Your task to perform on an android device: clear all cookies in the chrome app Image 0: 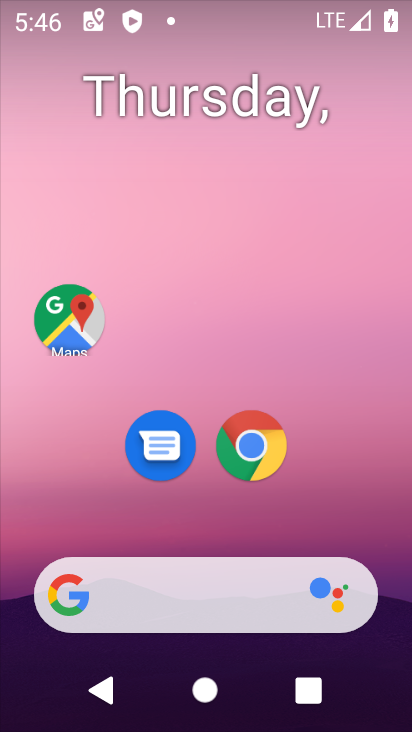
Step 0: click (254, 438)
Your task to perform on an android device: clear all cookies in the chrome app Image 1: 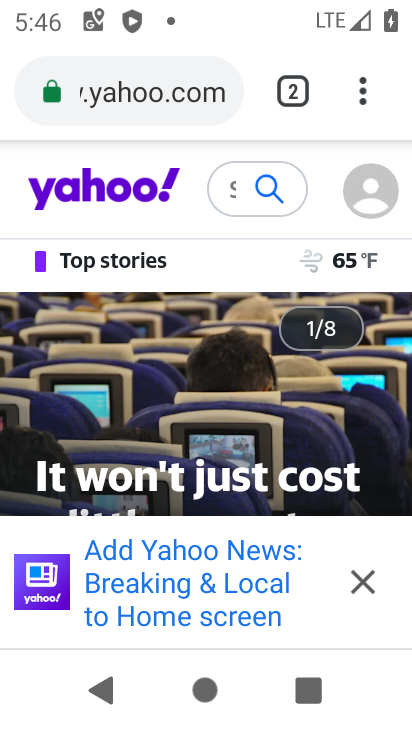
Step 1: drag from (357, 90) to (123, 476)
Your task to perform on an android device: clear all cookies in the chrome app Image 2: 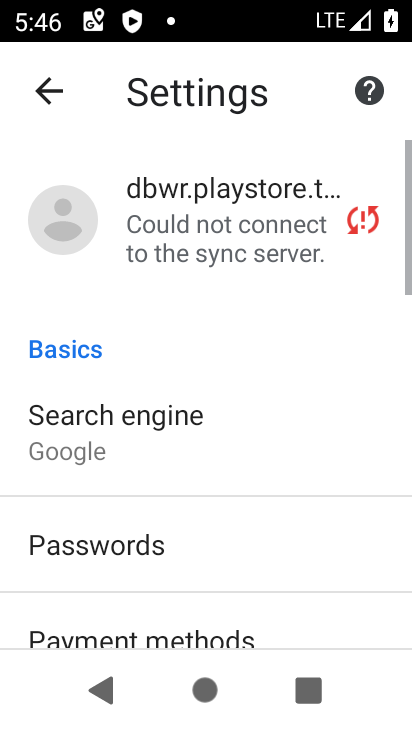
Step 2: drag from (256, 586) to (223, 188)
Your task to perform on an android device: clear all cookies in the chrome app Image 3: 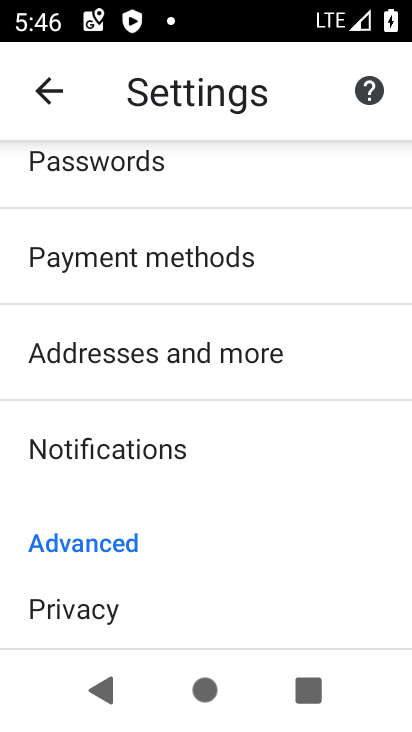
Step 3: click (105, 610)
Your task to perform on an android device: clear all cookies in the chrome app Image 4: 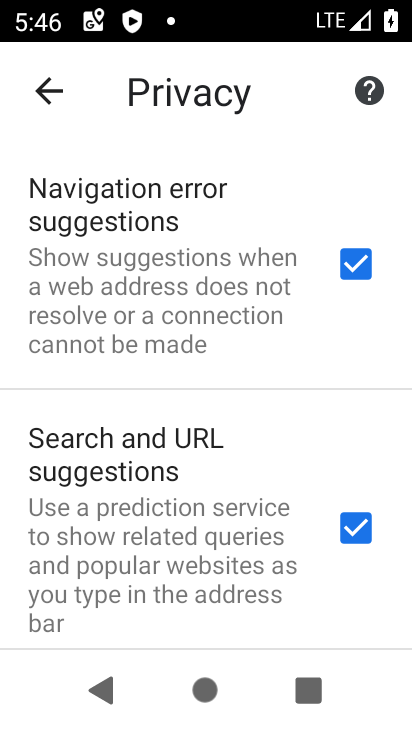
Step 4: drag from (229, 556) to (226, 244)
Your task to perform on an android device: clear all cookies in the chrome app Image 5: 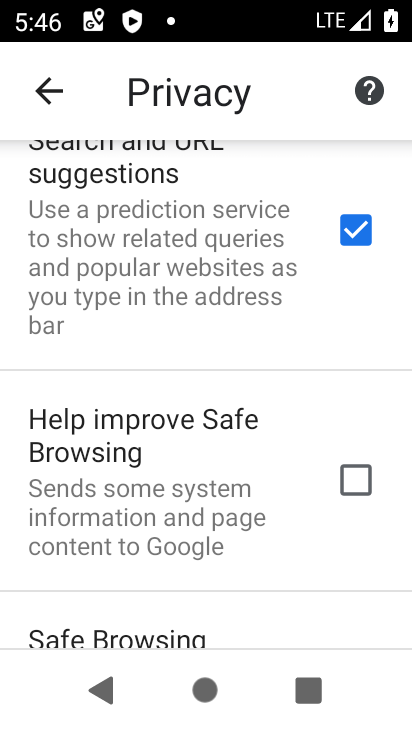
Step 5: drag from (215, 588) to (226, 257)
Your task to perform on an android device: clear all cookies in the chrome app Image 6: 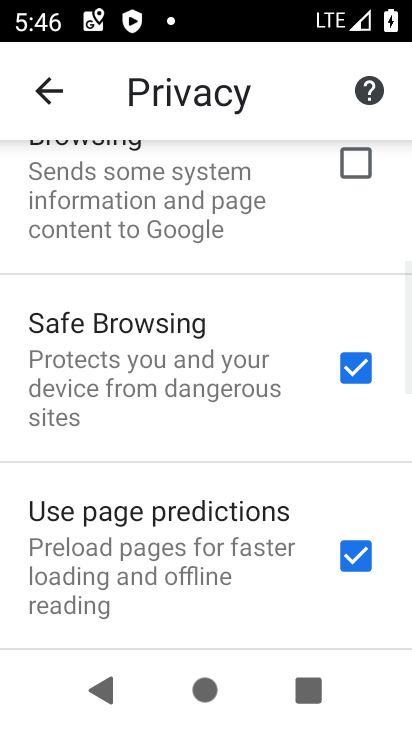
Step 6: drag from (223, 601) to (261, 209)
Your task to perform on an android device: clear all cookies in the chrome app Image 7: 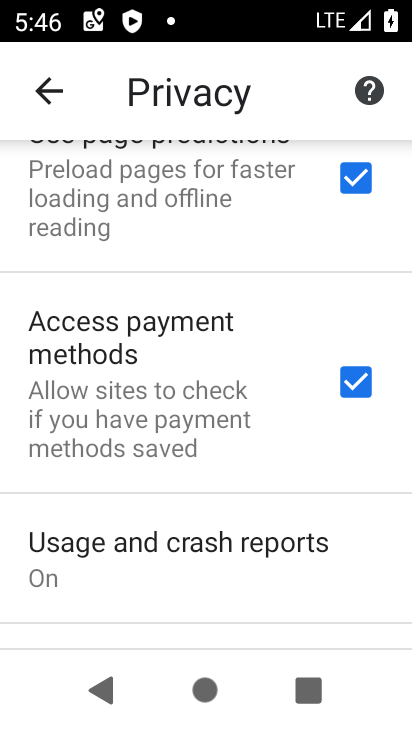
Step 7: drag from (223, 563) to (238, 233)
Your task to perform on an android device: clear all cookies in the chrome app Image 8: 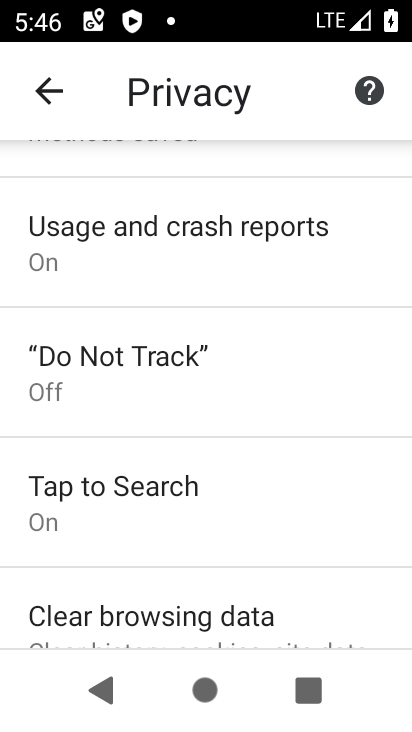
Step 8: drag from (233, 565) to (269, 199)
Your task to perform on an android device: clear all cookies in the chrome app Image 9: 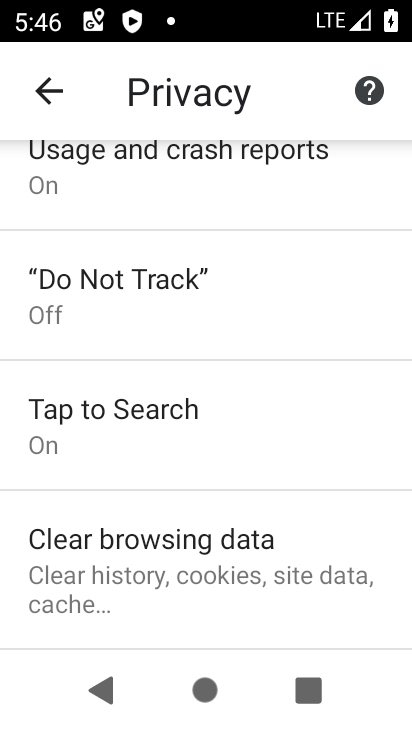
Step 9: click (179, 570)
Your task to perform on an android device: clear all cookies in the chrome app Image 10: 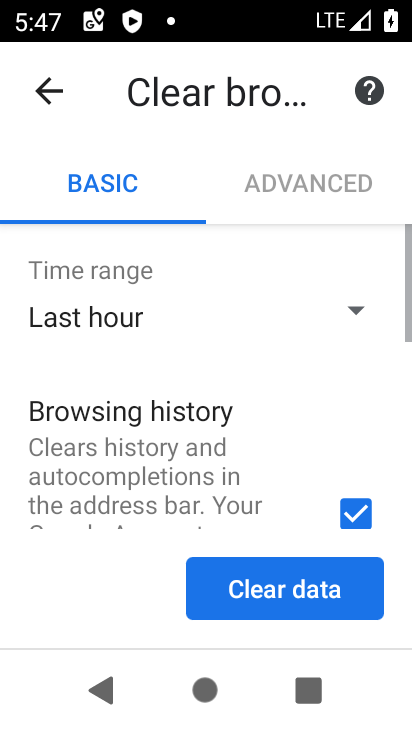
Step 10: drag from (240, 452) to (247, 293)
Your task to perform on an android device: clear all cookies in the chrome app Image 11: 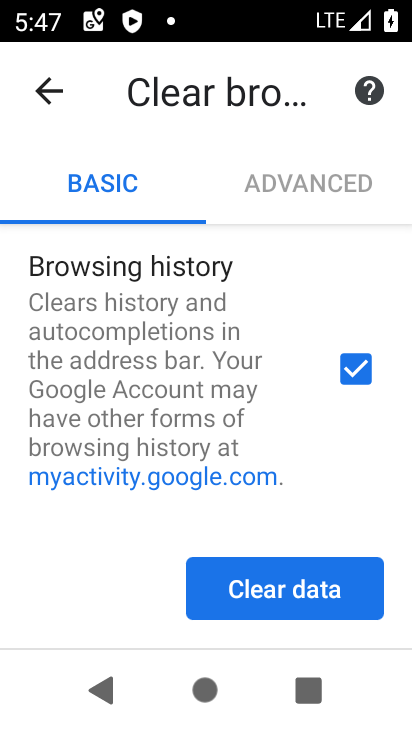
Step 11: drag from (215, 466) to (243, 278)
Your task to perform on an android device: clear all cookies in the chrome app Image 12: 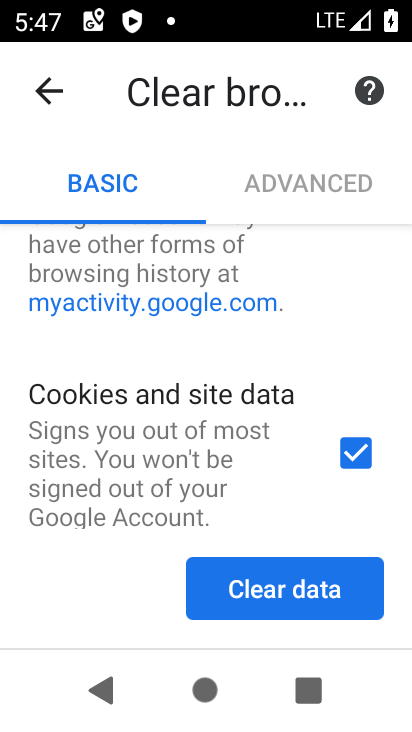
Step 12: drag from (230, 454) to (218, 288)
Your task to perform on an android device: clear all cookies in the chrome app Image 13: 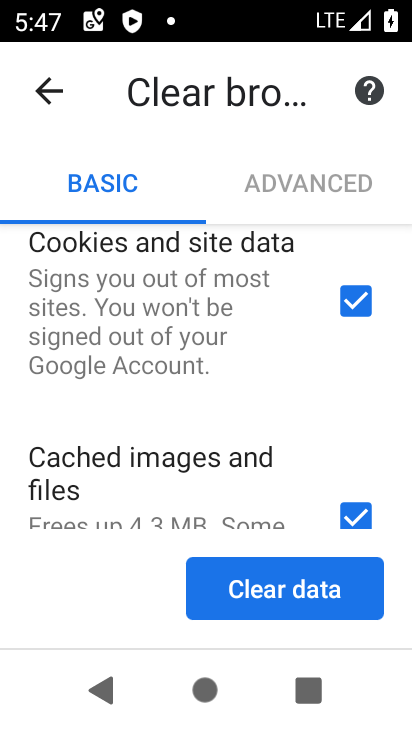
Step 13: click (277, 579)
Your task to perform on an android device: clear all cookies in the chrome app Image 14: 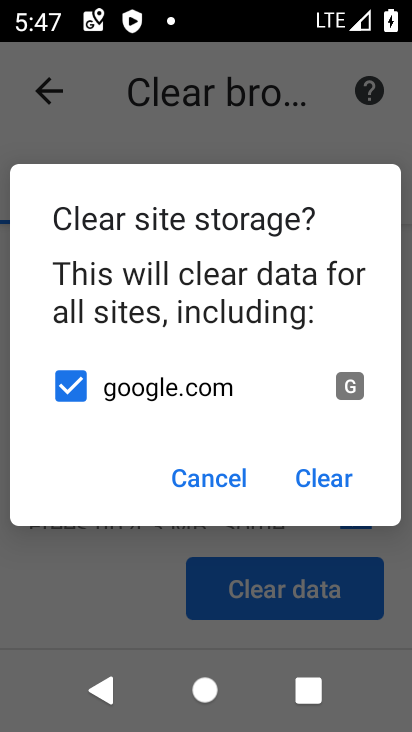
Step 14: click (311, 471)
Your task to perform on an android device: clear all cookies in the chrome app Image 15: 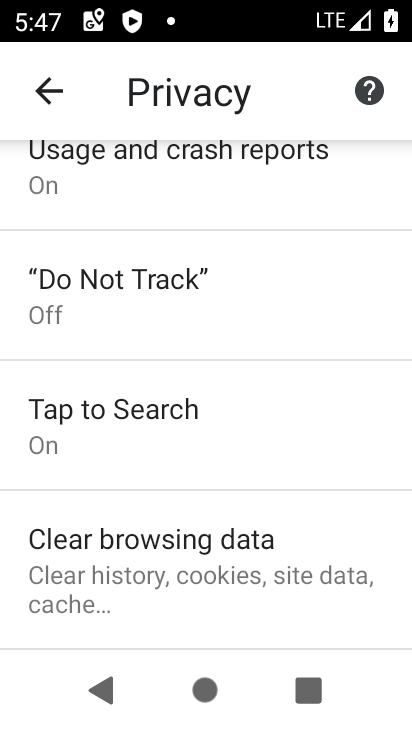
Step 15: task complete